Your task to perform on an android device: Go to settings Image 0: 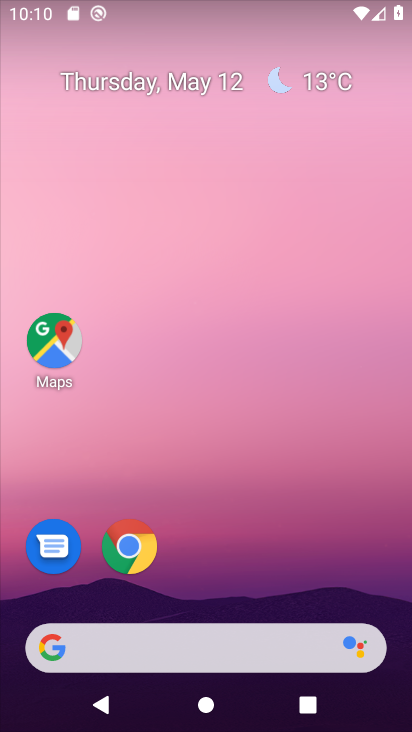
Step 0: drag from (209, 609) to (199, 207)
Your task to perform on an android device: Go to settings Image 1: 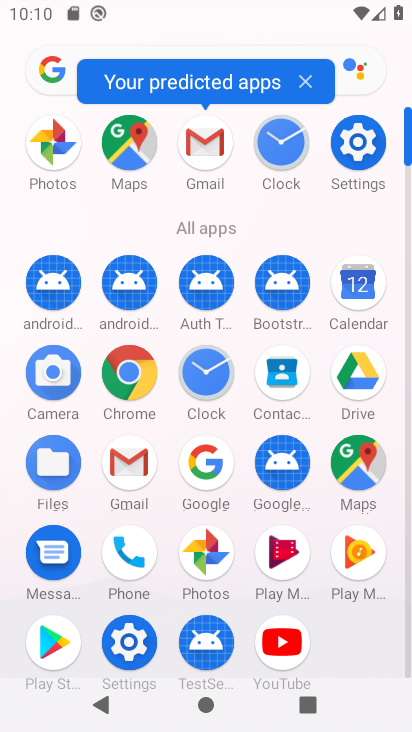
Step 1: click (357, 141)
Your task to perform on an android device: Go to settings Image 2: 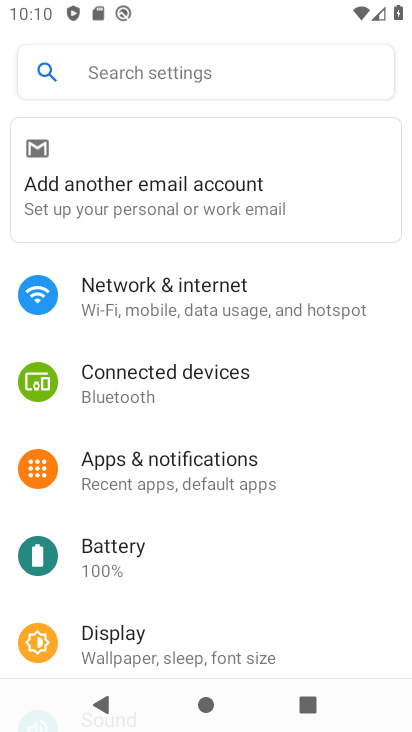
Step 2: task complete